Your task to perform on an android device: open app "LiveIn - Share Your Moment" Image 0: 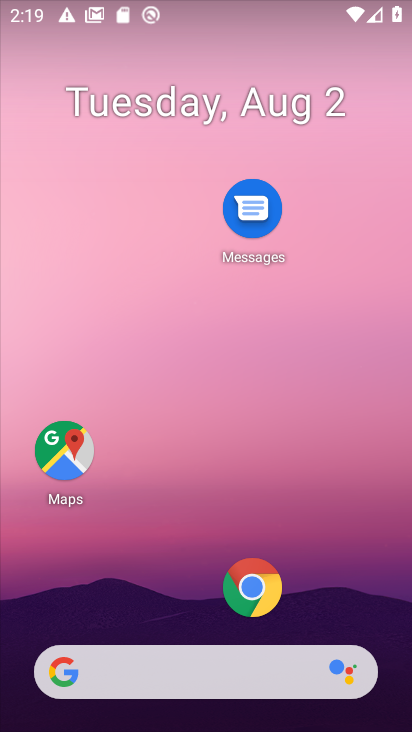
Step 0: drag from (184, 591) to (193, 227)
Your task to perform on an android device: open app "LiveIn - Share Your Moment" Image 1: 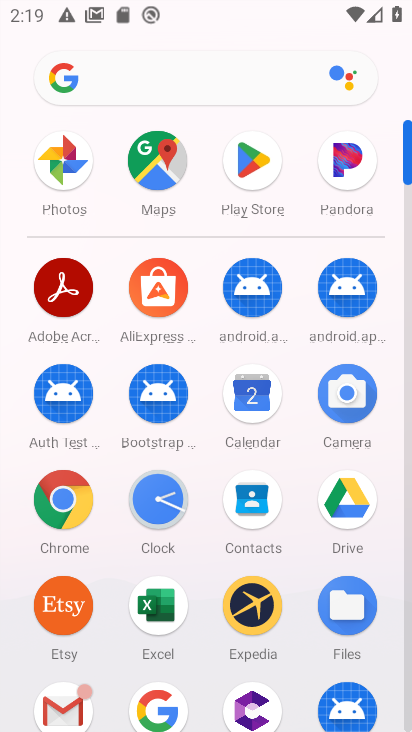
Step 1: click (251, 178)
Your task to perform on an android device: open app "LiveIn - Share Your Moment" Image 2: 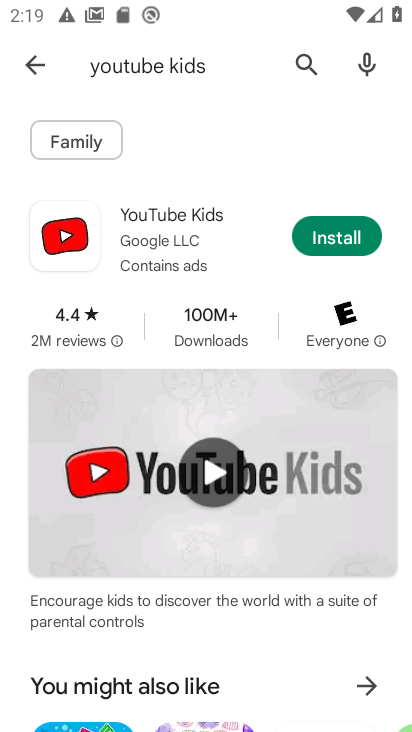
Step 2: click (313, 60)
Your task to perform on an android device: open app "LiveIn - Share Your Moment" Image 3: 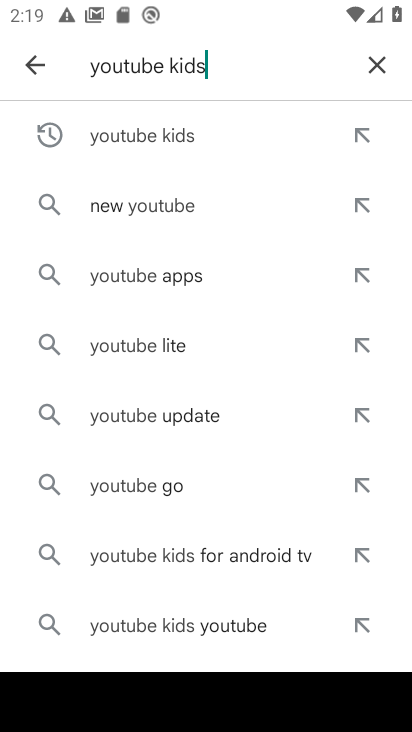
Step 3: click (374, 65)
Your task to perform on an android device: open app "LiveIn - Share Your Moment" Image 4: 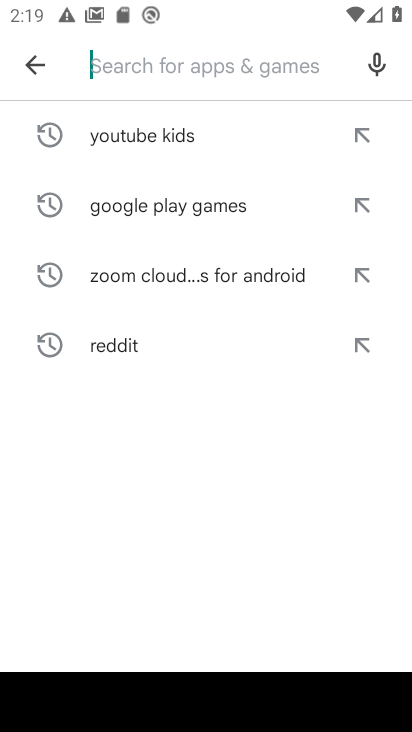
Step 4: type "LiveIn - Share Your Moment"
Your task to perform on an android device: open app "LiveIn - Share Your Moment" Image 5: 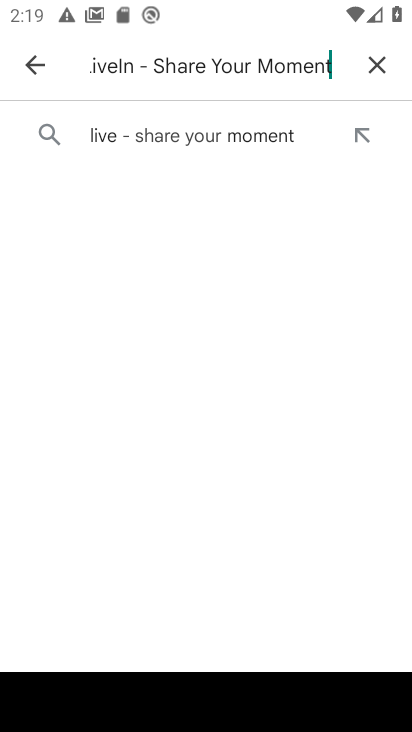
Step 5: type ""
Your task to perform on an android device: open app "LiveIn - Share Your Moment" Image 6: 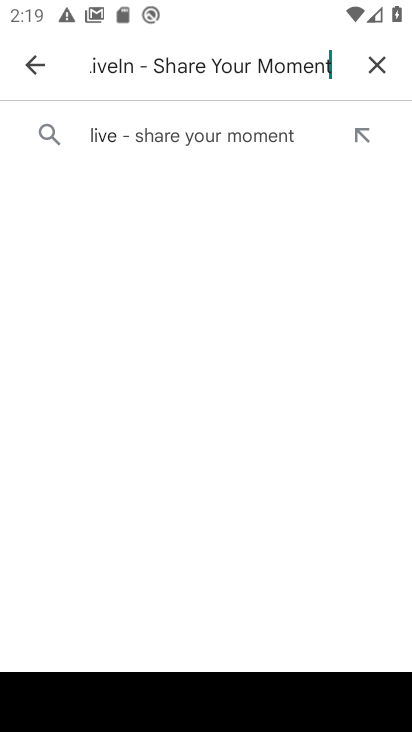
Step 6: click (203, 137)
Your task to perform on an android device: open app "LiveIn - Share Your Moment" Image 7: 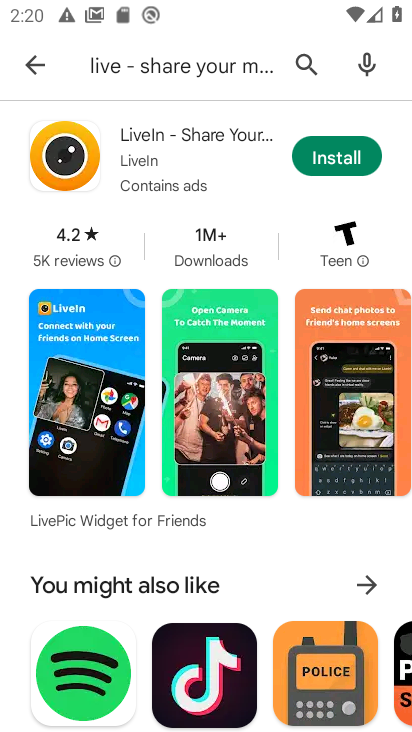
Step 7: task complete